Your task to perform on an android device: toggle improve location accuracy Image 0: 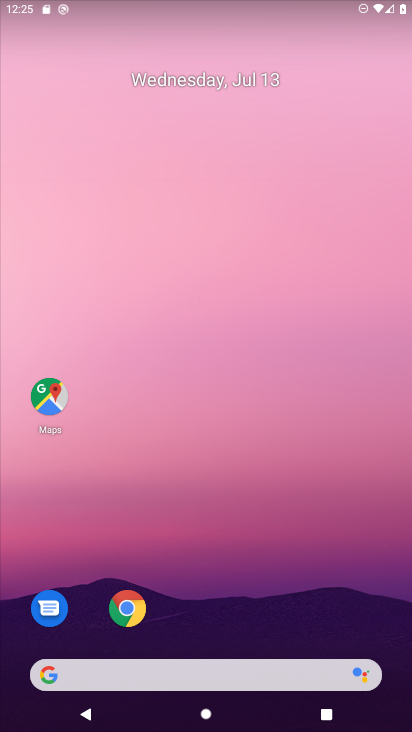
Step 0: drag from (222, 9) to (220, 603)
Your task to perform on an android device: toggle improve location accuracy Image 1: 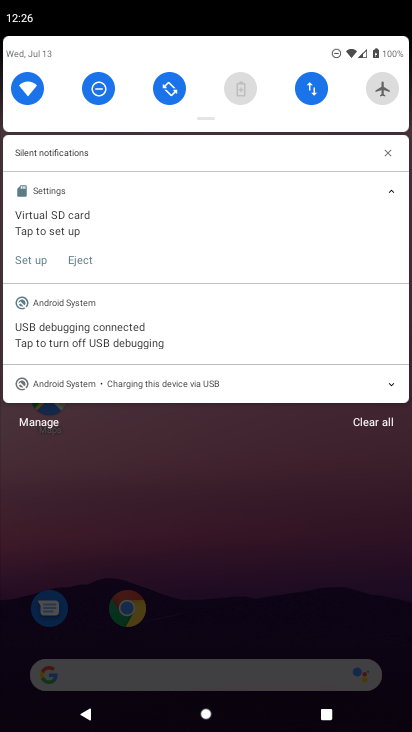
Step 1: drag from (288, 52) to (274, 675)
Your task to perform on an android device: toggle improve location accuracy Image 2: 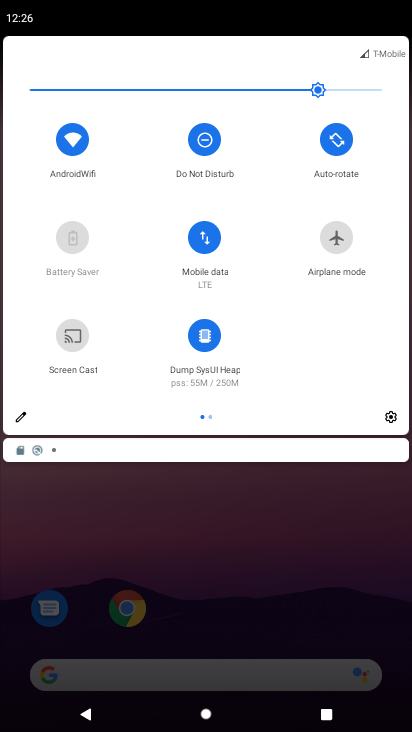
Step 2: click (385, 416)
Your task to perform on an android device: toggle improve location accuracy Image 3: 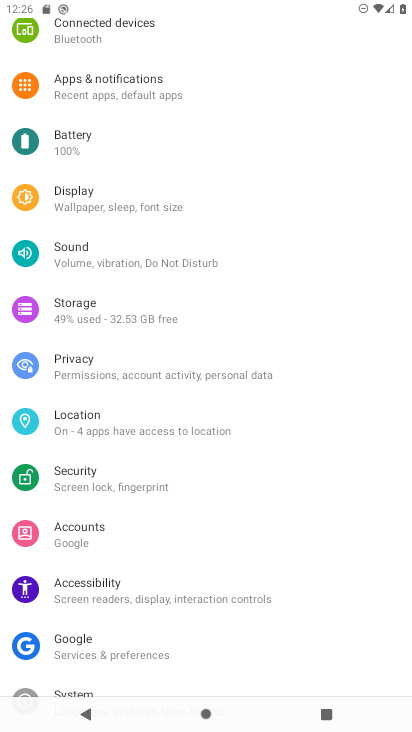
Step 3: click (210, 410)
Your task to perform on an android device: toggle improve location accuracy Image 4: 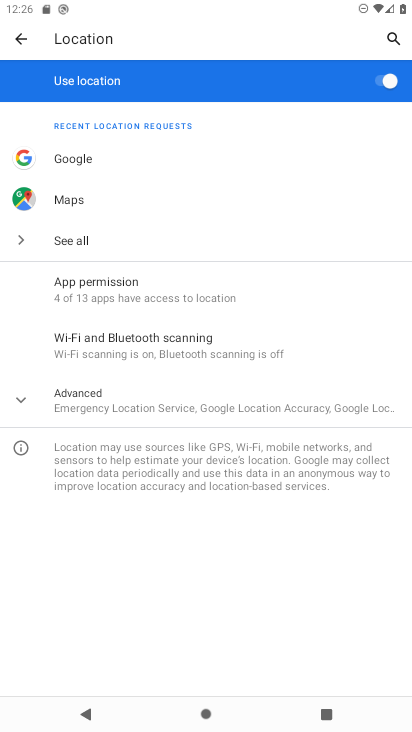
Step 4: click (110, 405)
Your task to perform on an android device: toggle improve location accuracy Image 5: 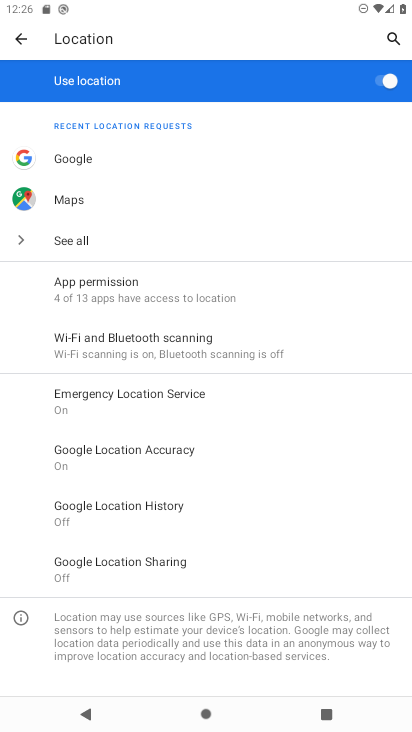
Step 5: click (119, 445)
Your task to perform on an android device: toggle improve location accuracy Image 6: 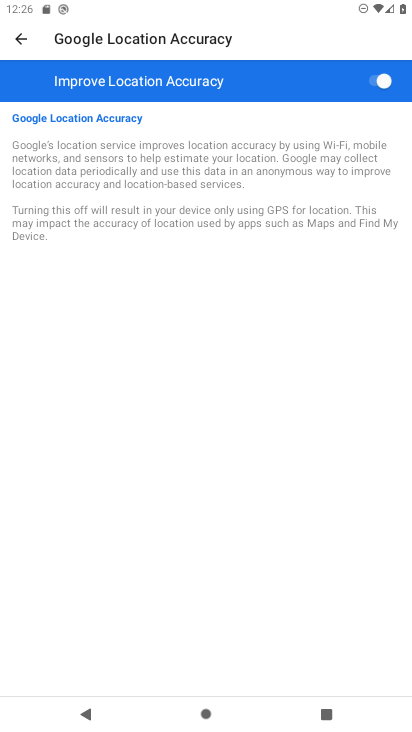
Step 6: click (381, 83)
Your task to perform on an android device: toggle improve location accuracy Image 7: 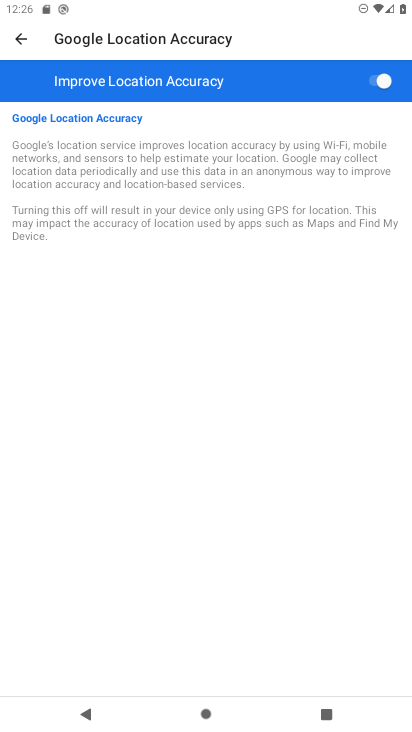
Step 7: click (381, 83)
Your task to perform on an android device: toggle improve location accuracy Image 8: 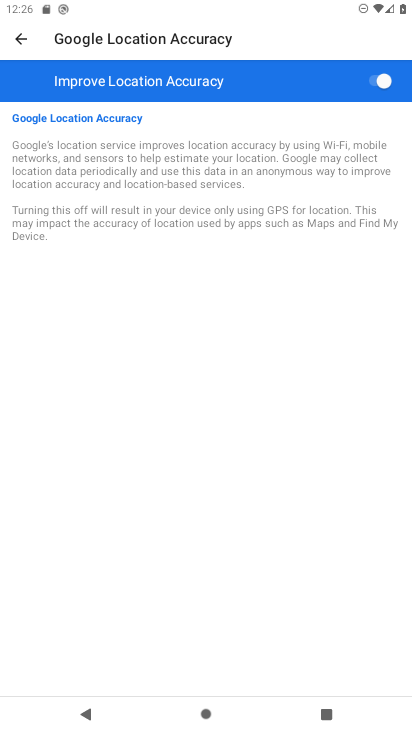
Step 8: click (381, 83)
Your task to perform on an android device: toggle improve location accuracy Image 9: 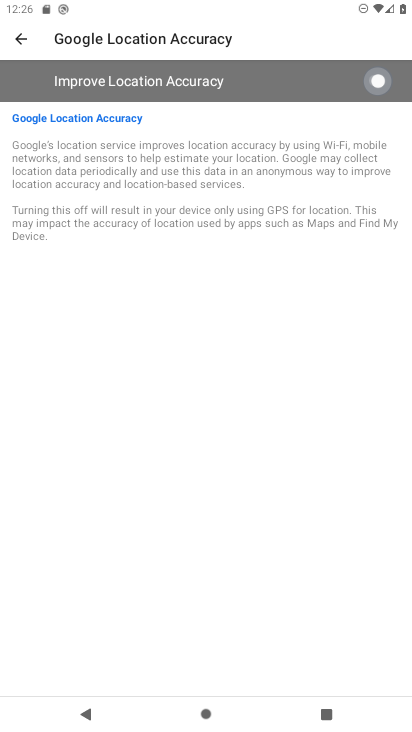
Step 9: click (381, 83)
Your task to perform on an android device: toggle improve location accuracy Image 10: 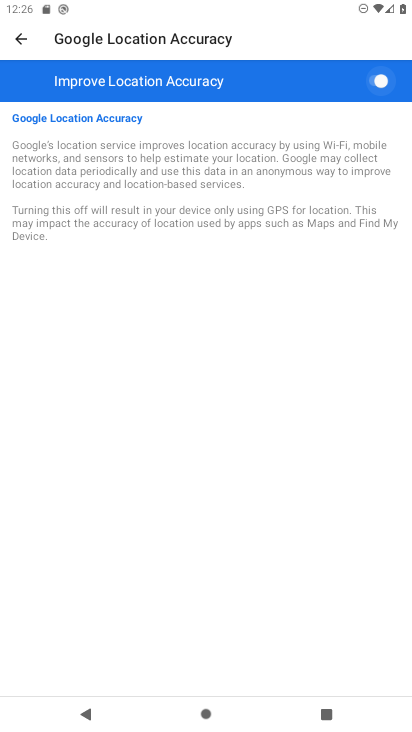
Step 10: click (381, 83)
Your task to perform on an android device: toggle improve location accuracy Image 11: 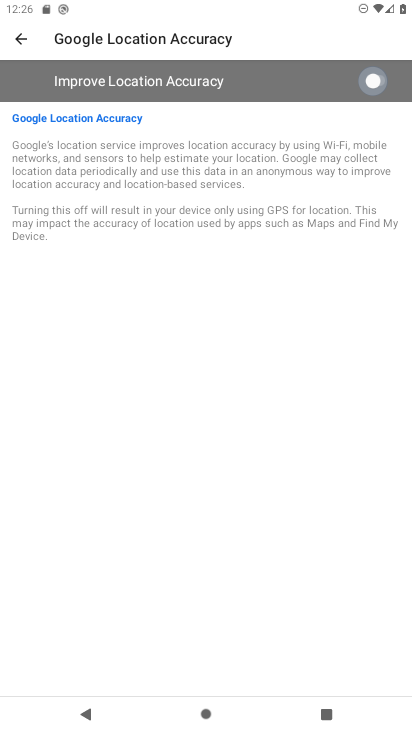
Step 11: click (381, 83)
Your task to perform on an android device: toggle improve location accuracy Image 12: 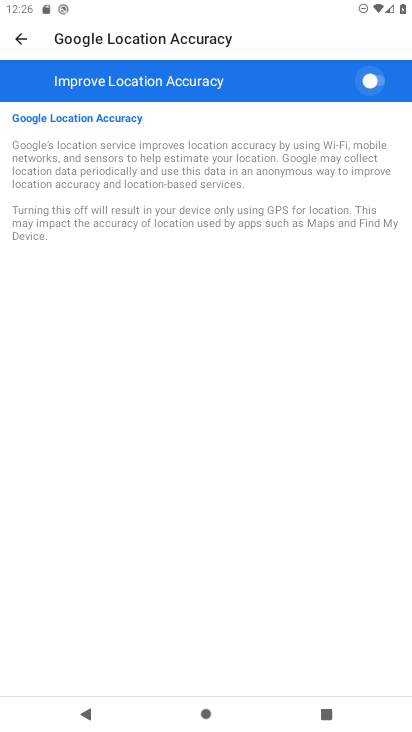
Step 12: click (381, 83)
Your task to perform on an android device: toggle improve location accuracy Image 13: 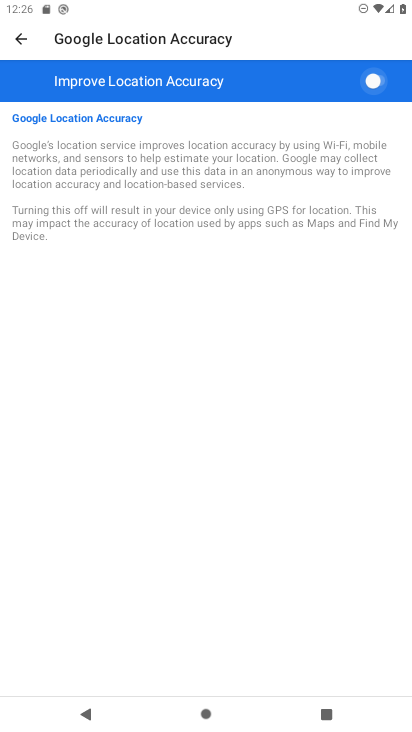
Step 13: click (381, 83)
Your task to perform on an android device: toggle improve location accuracy Image 14: 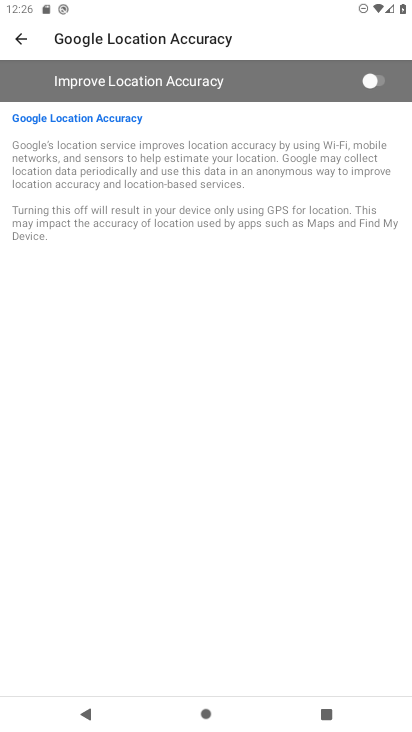
Step 14: task complete